Your task to perform on an android device: Open Chrome and go to the settings page Image 0: 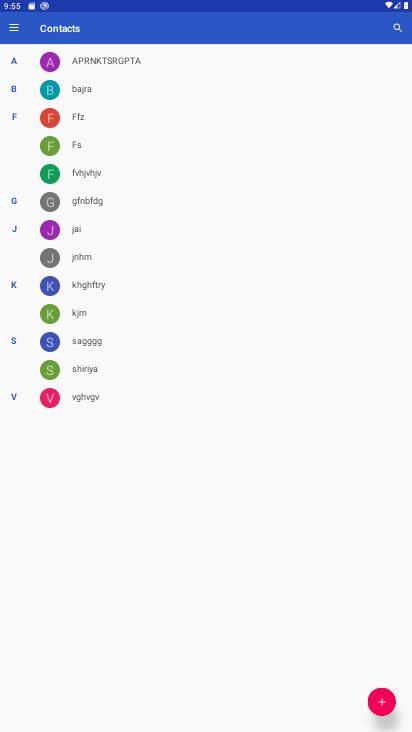
Step 0: press home button
Your task to perform on an android device: Open Chrome and go to the settings page Image 1: 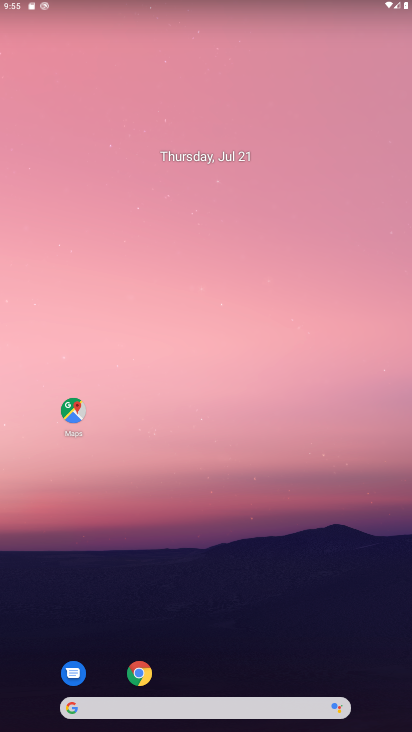
Step 1: click (143, 670)
Your task to perform on an android device: Open Chrome and go to the settings page Image 2: 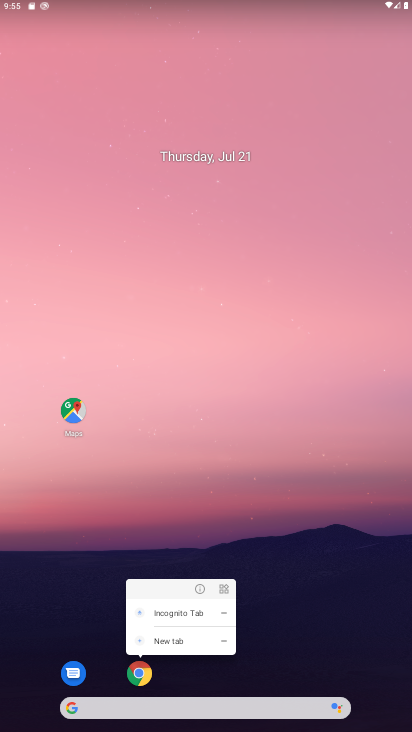
Step 2: click (143, 670)
Your task to perform on an android device: Open Chrome and go to the settings page Image 3: 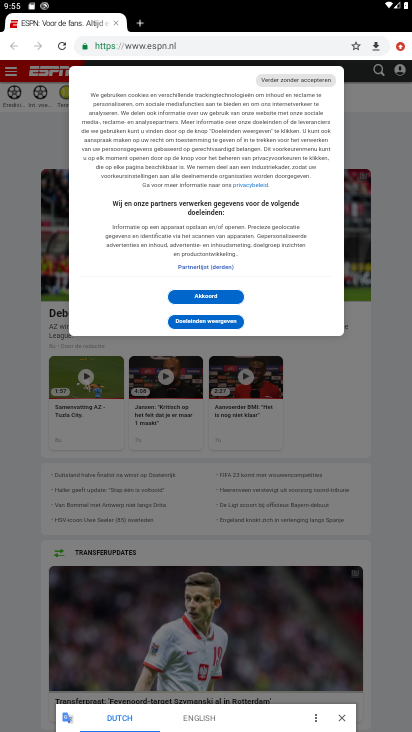
Step 3: click (399, 46)
Your task to perform on an android device: Open Chrome and go to the settings page Image 4: 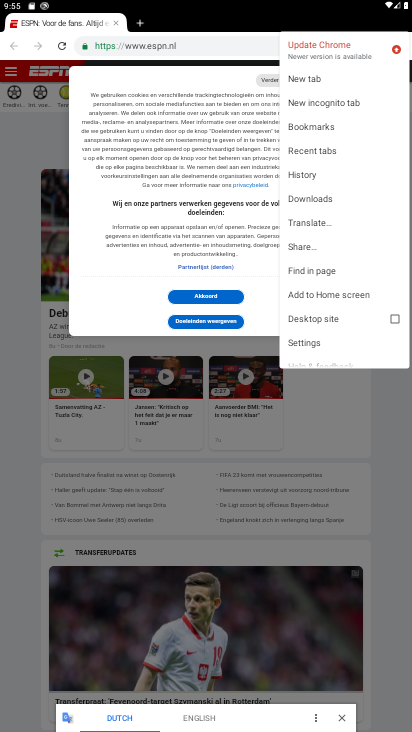
Step 4: click (322, 340)
Your task to perform on an android device: Open Chrome and go to the settings page Image 5: 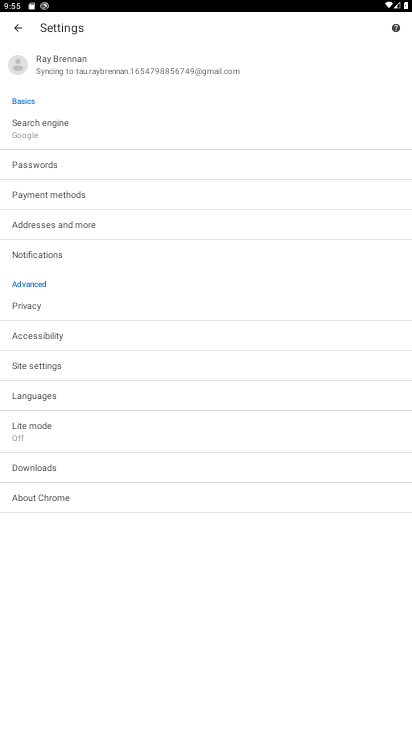
Step 5: task complete